Your task to perform on an android device: turn off notifications in google photos Image 0: 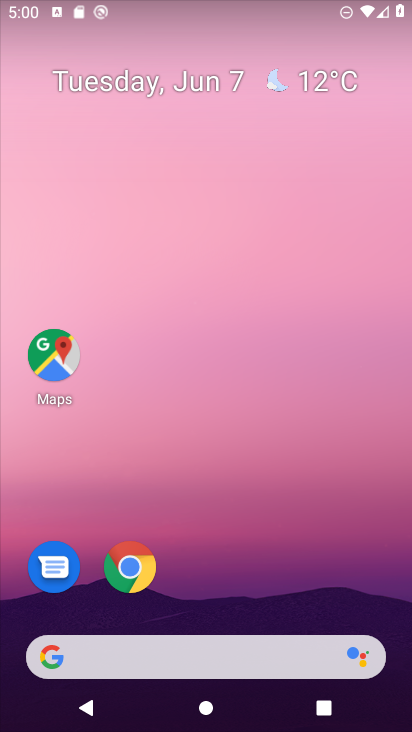
Step 0: drag from (271, 683) to (408, 81)
Your task to perform on an android device: turn off notifications in google photos Image 1: 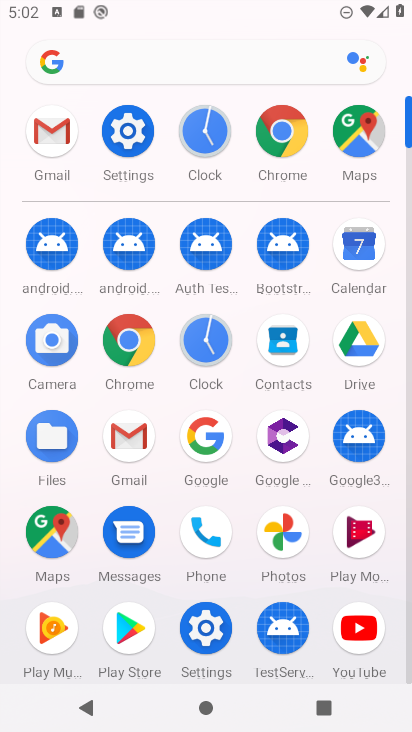
Step 1: click (297, 537)
Your task to perform on an android device: turn off notifications in google photos Image 2: 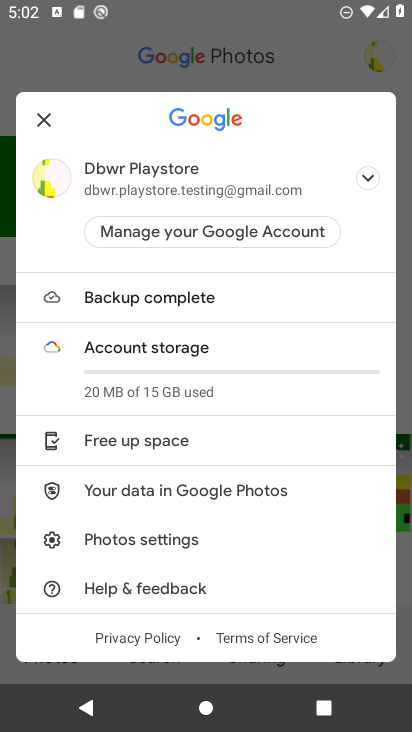
Step 2: click (170, 542)
Your task to perform on an android device: turn off notifications in google photos Image 3: 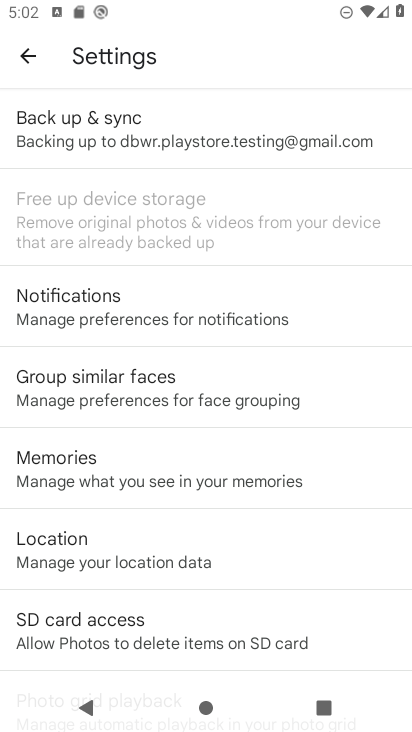
Step 3: click (196, 317)
Your task to perform on an android device: turn off notifications in google photos Image 4: 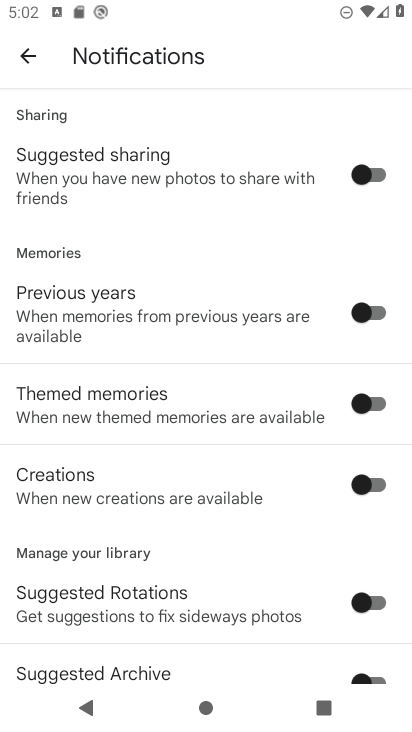
Step 4: drag from (160, 627) to (232, 150)
Your task to perform on an android device: turn off notifications in google photos Image 5: 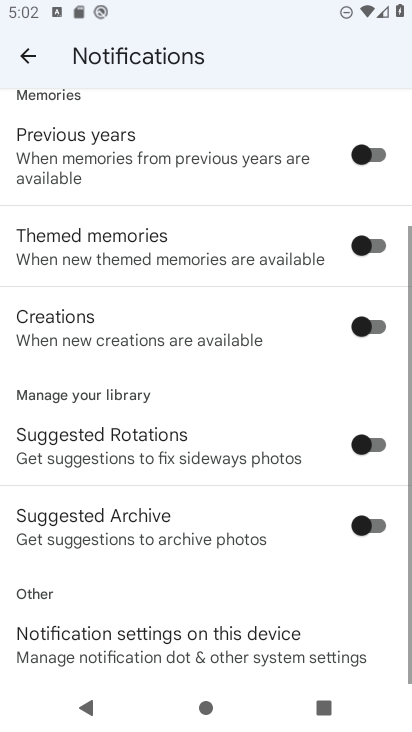
Step 5: click (144, 655)
Your task to perform on an android device: turn off notifications in google photos Image 6: 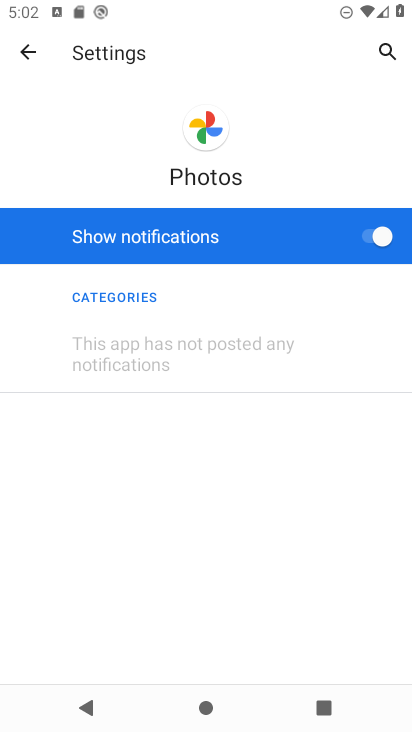
Step 6: click (363, 232)
Your task to perform on an android device: turn off notifications in google photos Image 7: 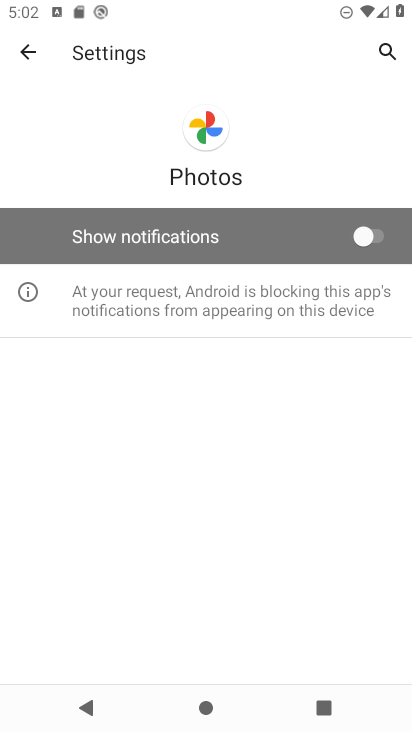
Step 7: task complete